Your task to perform on an android device: Go to Wikipedia Image 0: 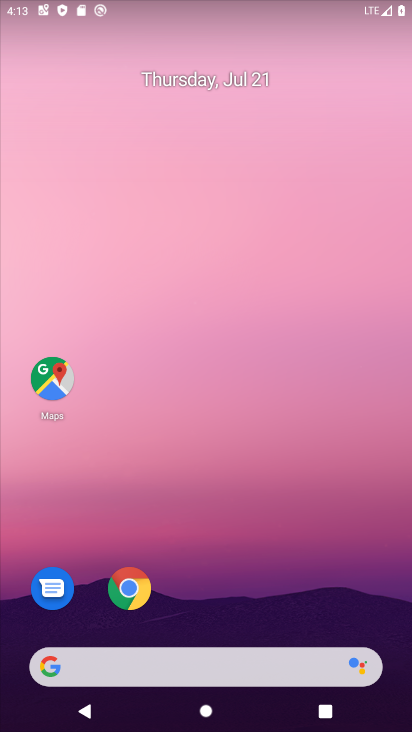
Step 0: drag from (269, 607) to (303, 23)
Your task to perform on an android device: Go to Wikipedia Image 1: 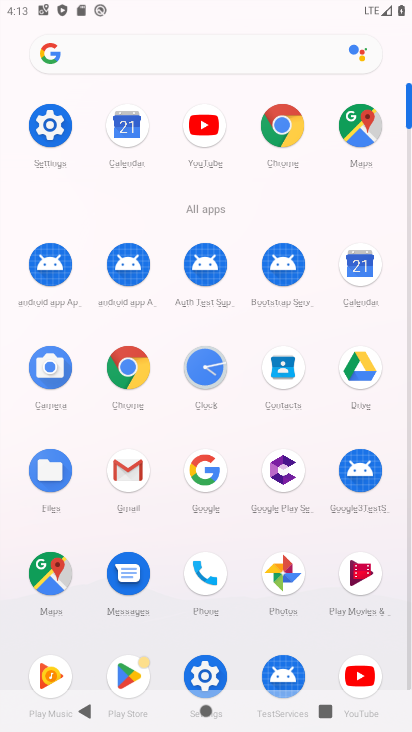
Step 1: click (129, 369)
Your task to perform on an android device: Go to Wikipedia Image 2: 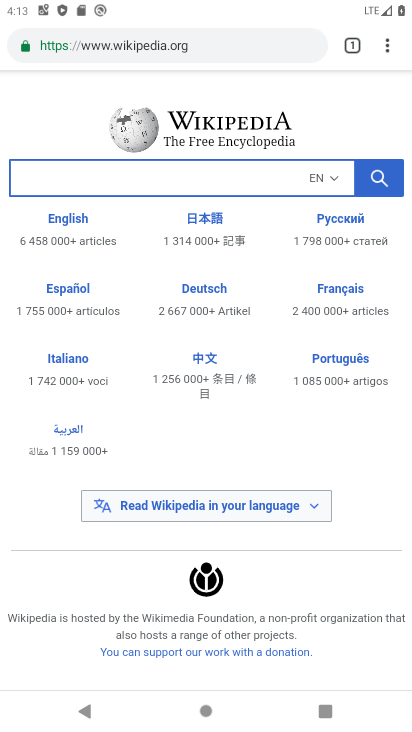
Step 2: click (217, 34)
Your task to perform on an android device: Go to Wikipedia Image 3: 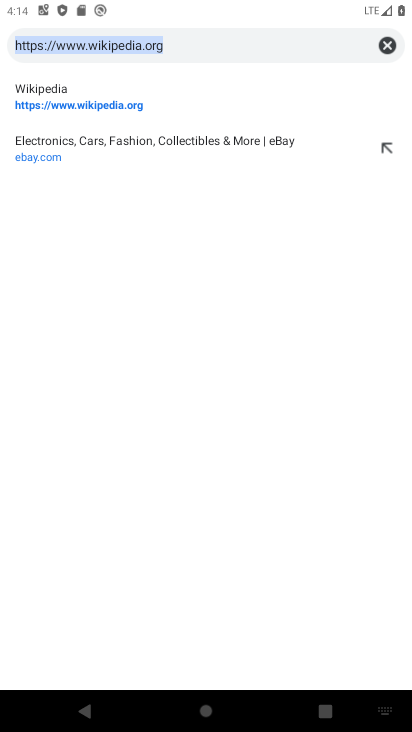
Step 3: click (45, 85)
Your task to perform on an android device: Go to Wikipedia Image 4: 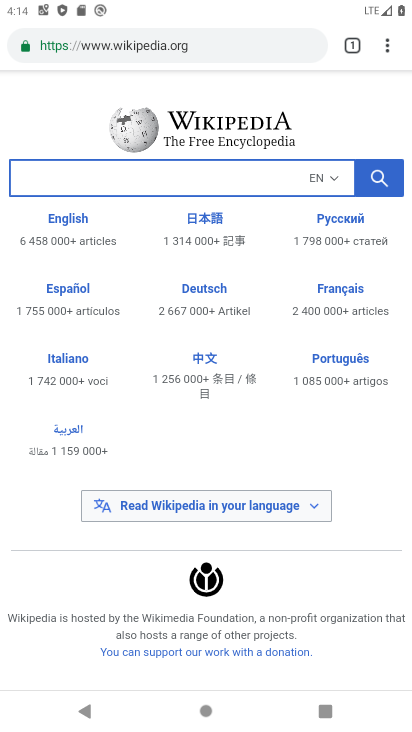
Step 4: task complete